Your task to perform on an android device: install app "Spotify: Music and Podcasts" Image 0: 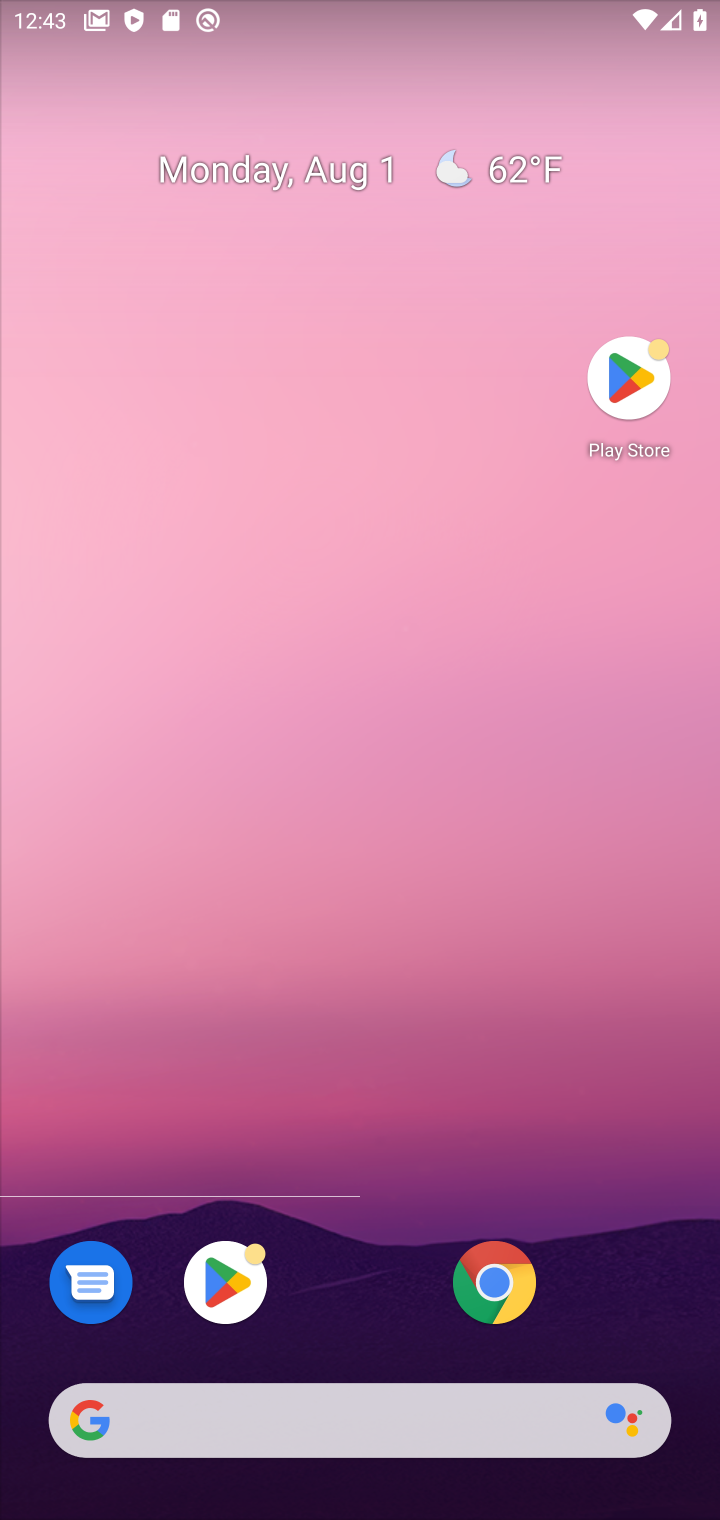
Step 0: drag from (180, 487) to (358, 368)
Your task to perform on an android device: install app "Spotify: Music and Podcasts" Image 1: 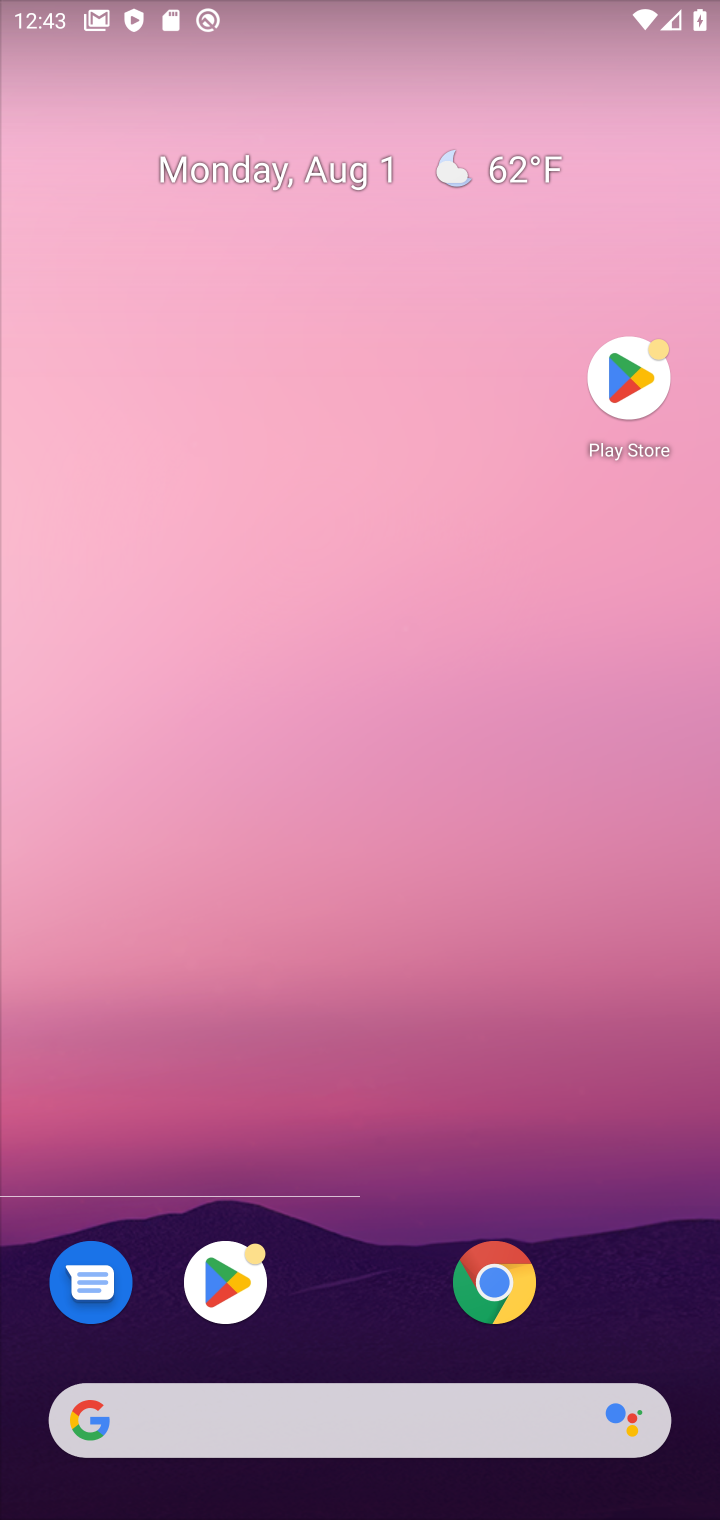
Step 1: drag from (223, 1317) to (203, 295)
Your task to perform on an android device: install app "Spotify: Music and Podcasts" Image 2: 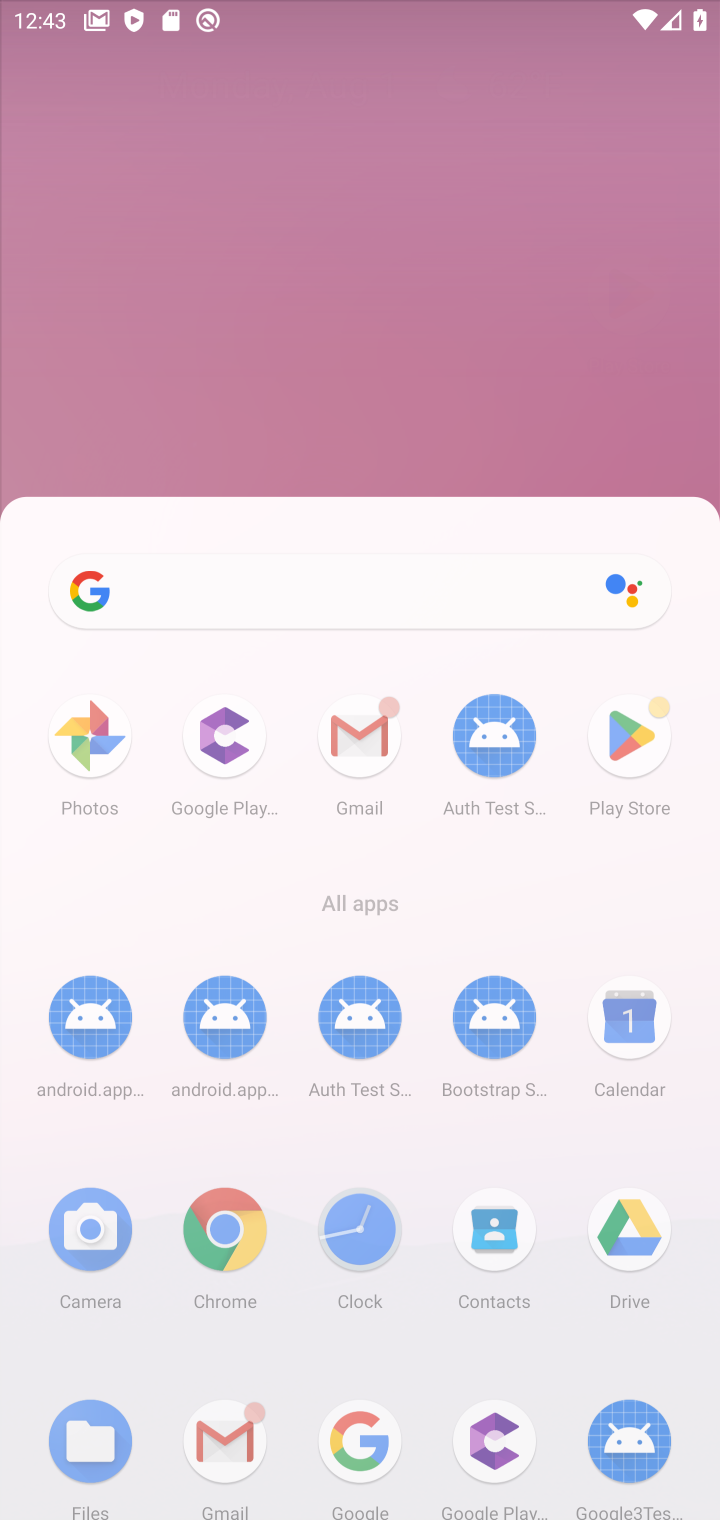
Step 2: drag from (348, 990) to (415, 608)
Your task to perform on an android device: install app "Spotify: Music and Podcasts" Image 3: 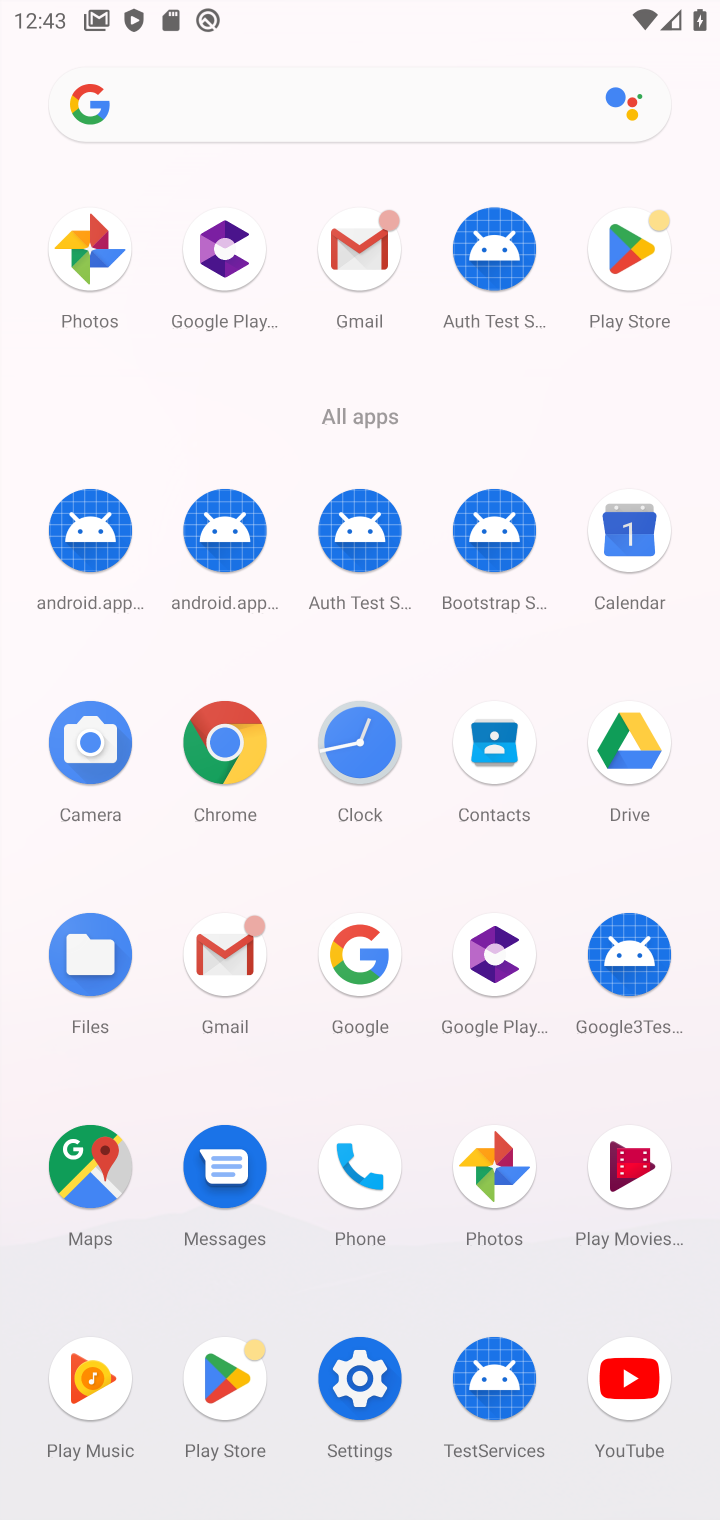
Step 3: drag from (304, 1297) to (325, 295)
Your task to perform on an android device: install app "Spotify: Music and Podcasts" Image 4: 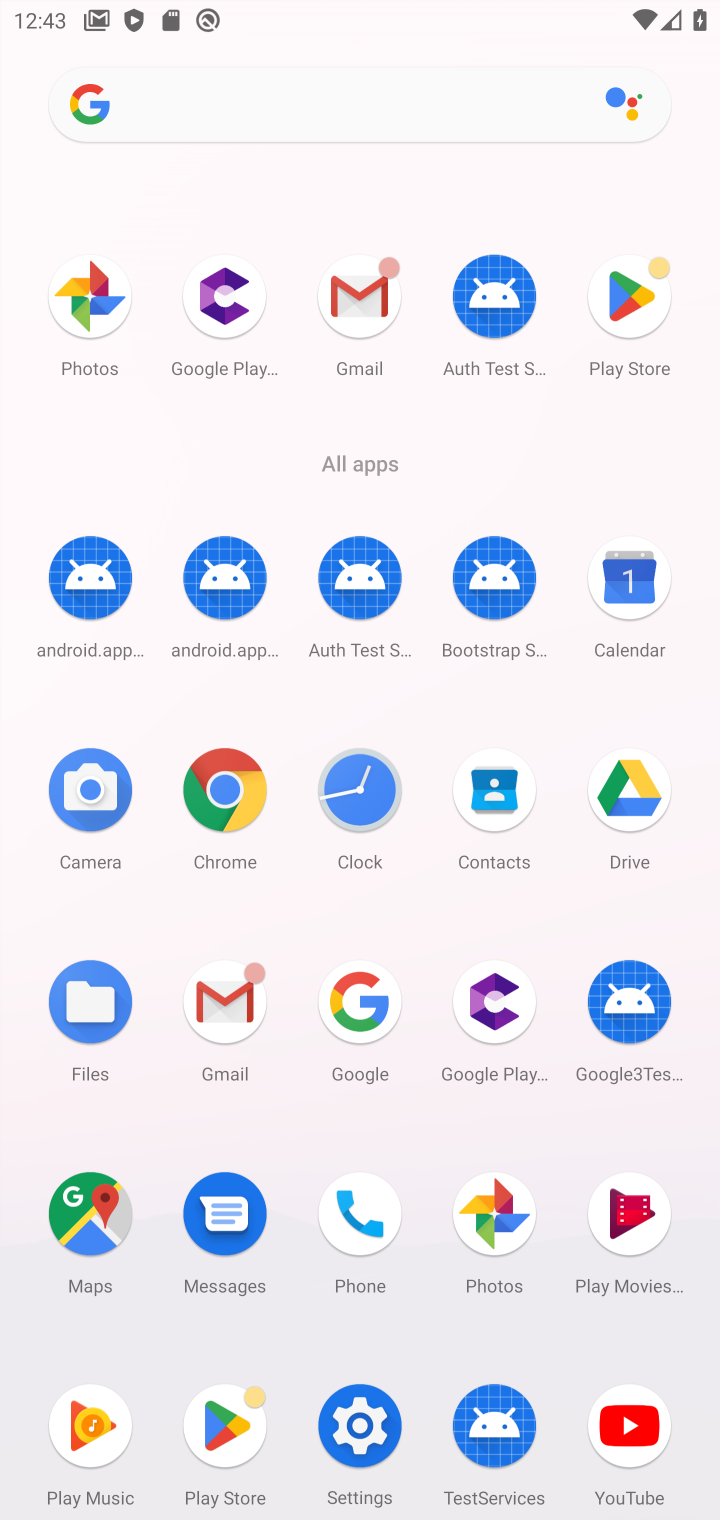
Step 4: drag from (382, 497) to (445, 530)
Your task to perform on an android device: install app "Spotify: Music and Podcasts" Image 5: 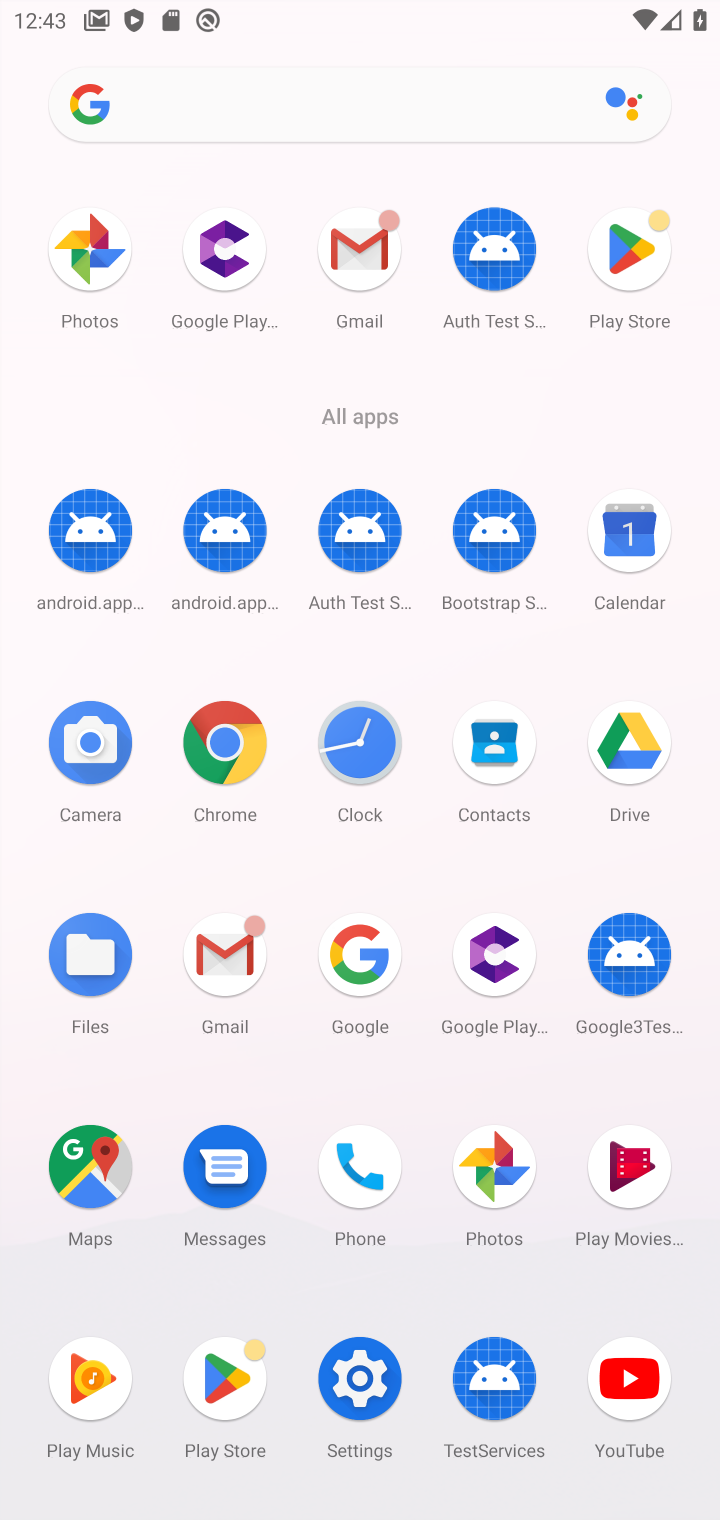
Step 5: click (222, 1395)
Your task to perform on an android device: install app "Spotify: Music and Podcasts" Image 6: 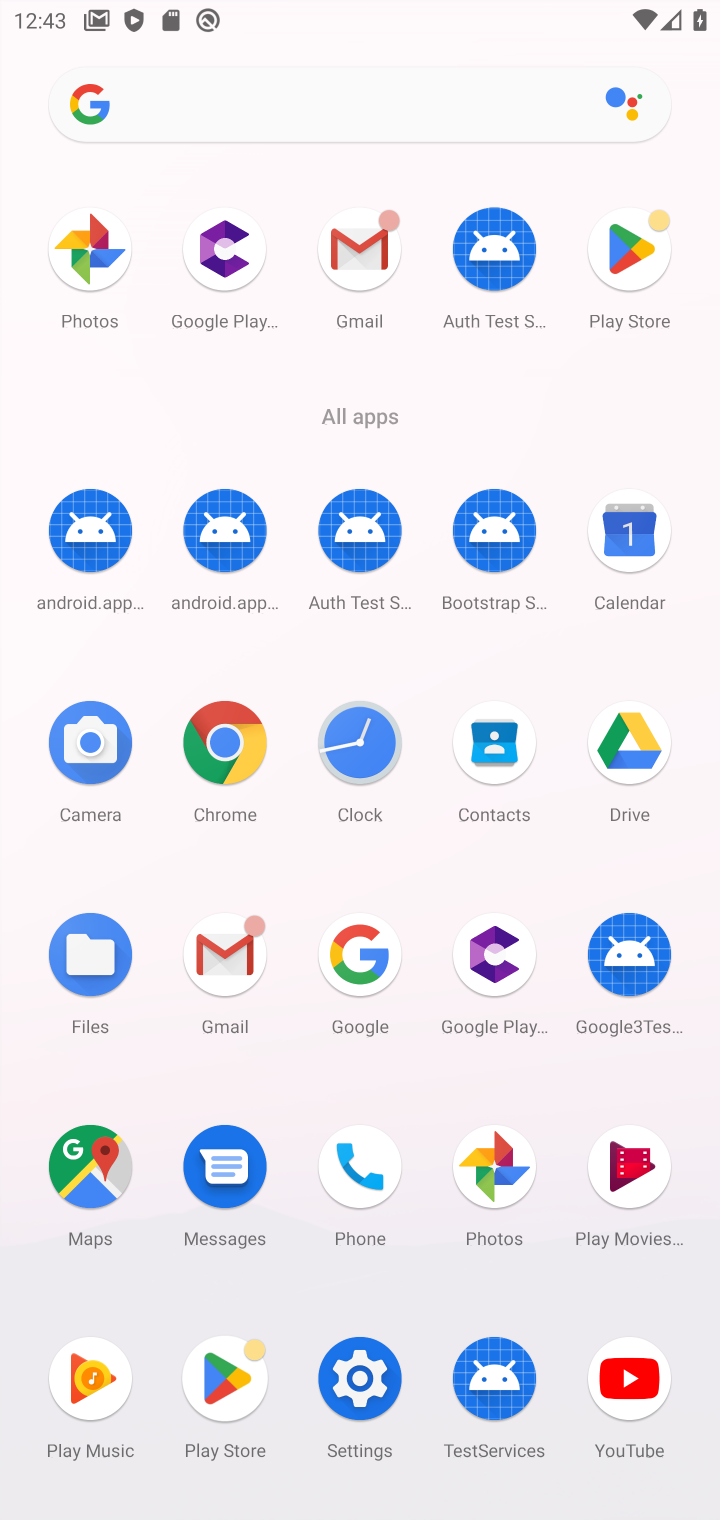
Step 6: click (219, 1387)
Your task to perform on an android device: install app "Spotify: Music and Podcasts" Image 7: 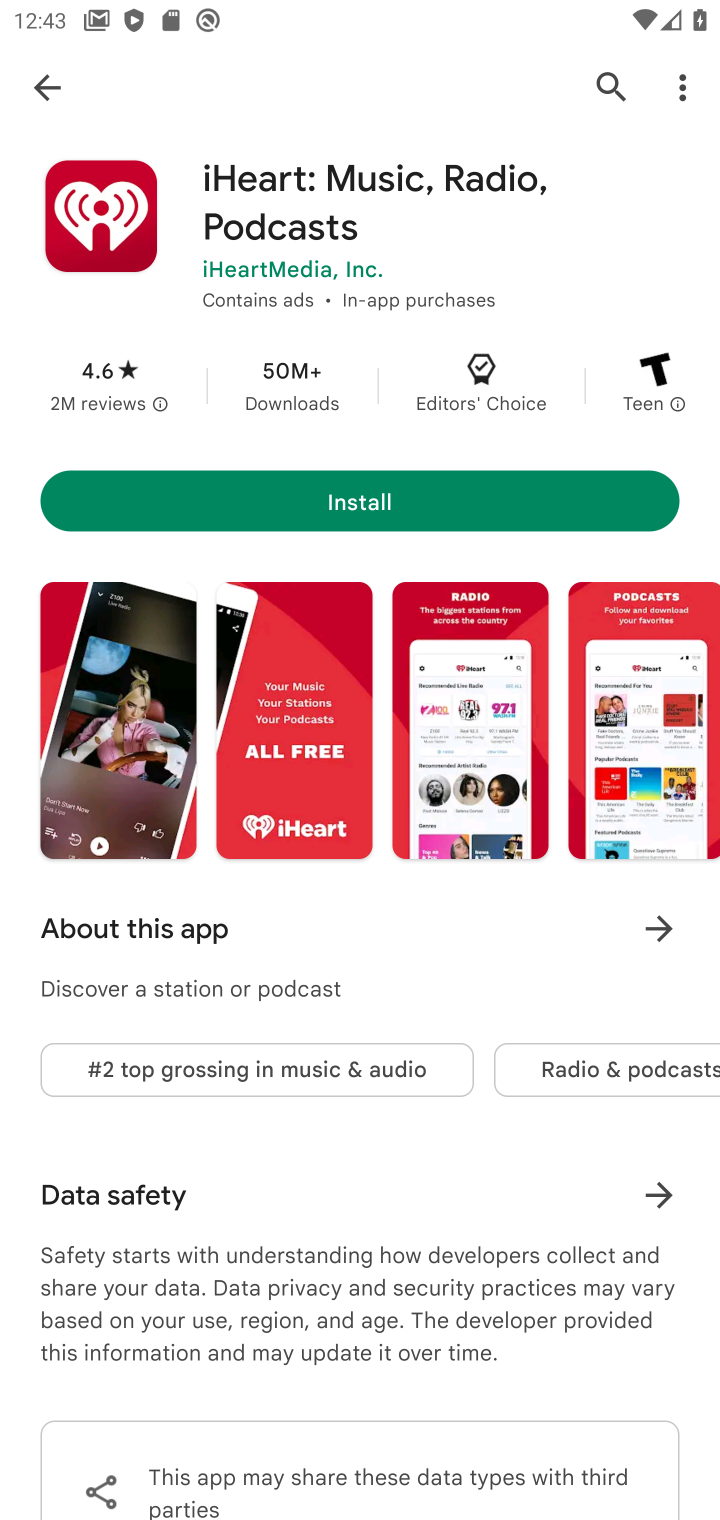
Step 7: click (232, 1390)
Your task to perform on an android device: install app "Spotify: Music and Podcasts" Image 8: 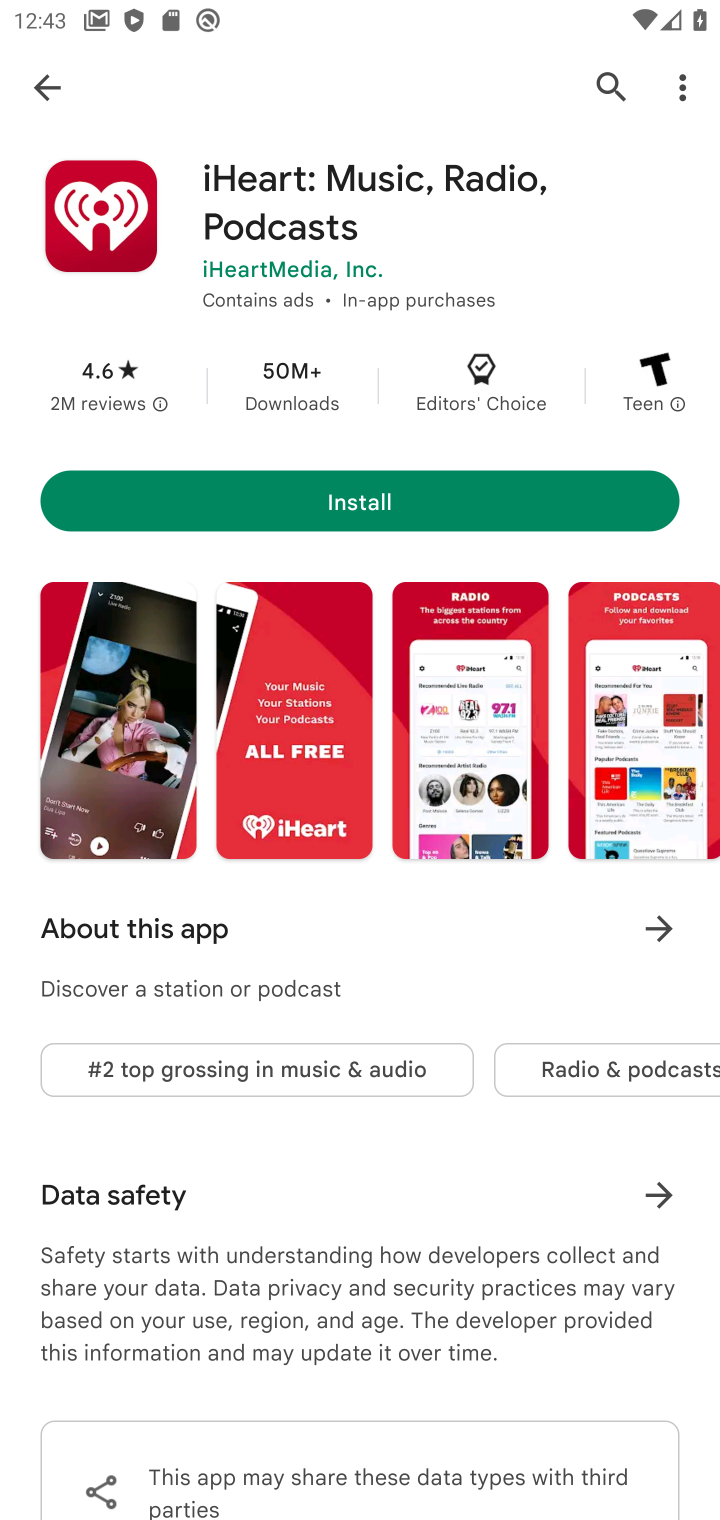
Step 8: click (37, 74)
Your task to perform on an android device: install app "Spotify: Music and Podcasts" Image 9: 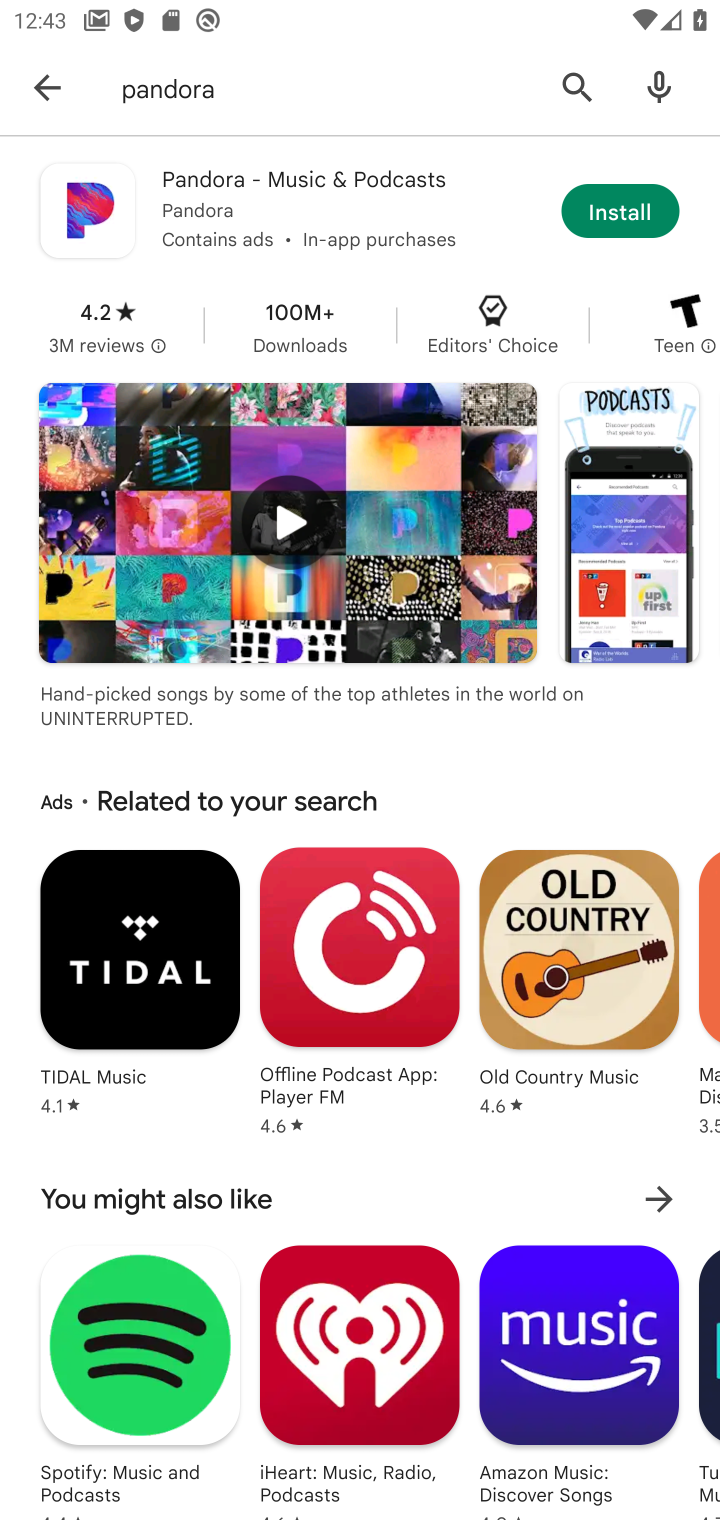
Step 9: click (33, 80)
Your task to perform on an android device: install app "Spotify: Music and Podcasts" Image 10: 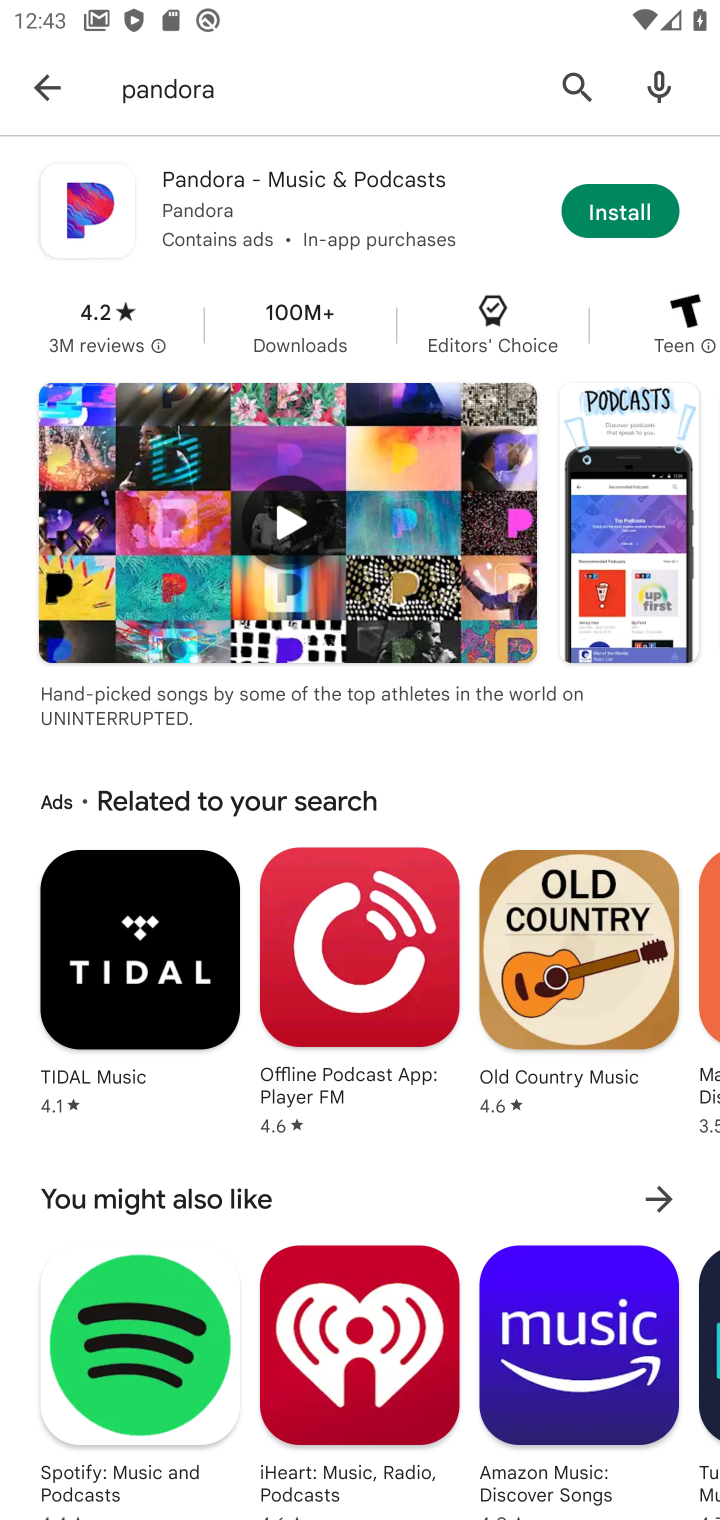
Step 10: click (44, 86)
Your task to perform on an android device: install app "Spotify: Music and Podcasts" Image 11: 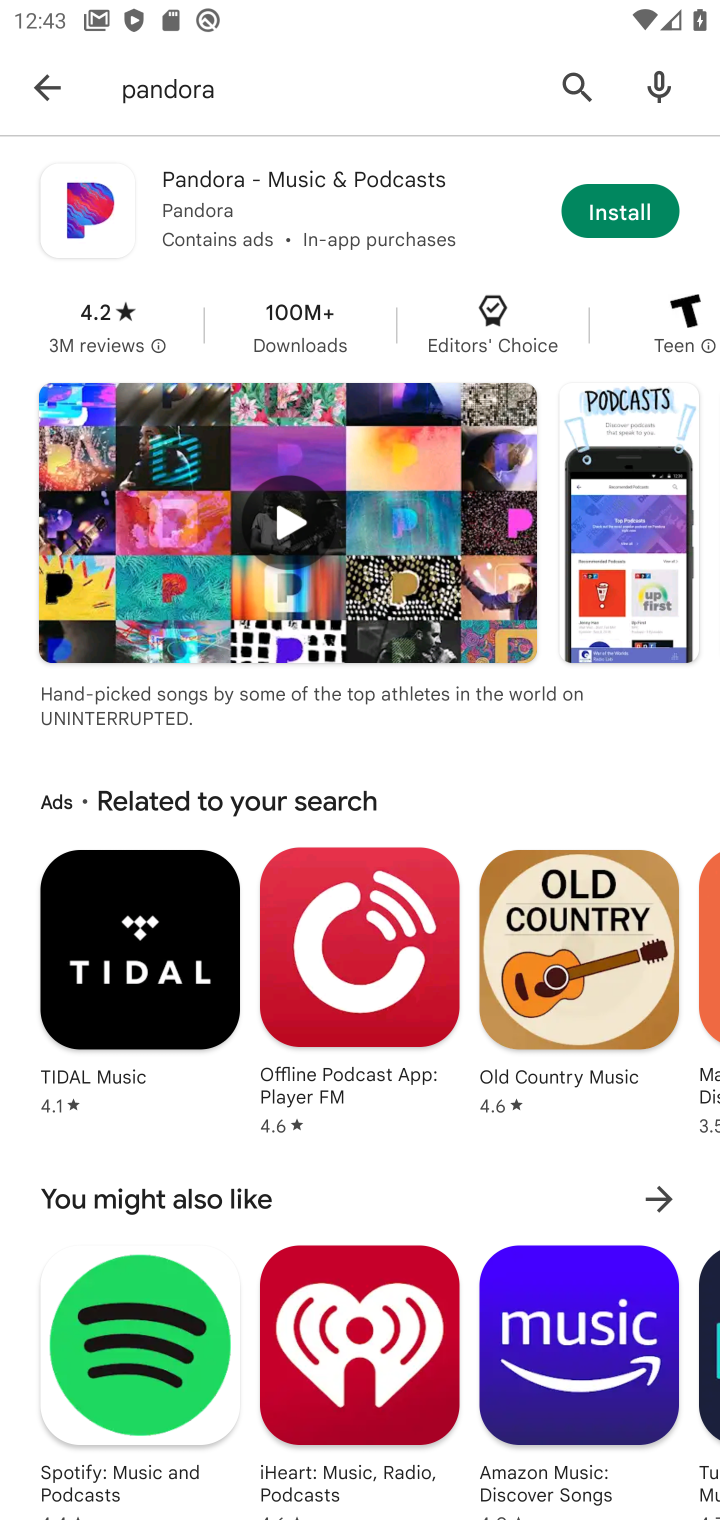
Step 11: click (45, 80)
Your task to perform on an android device: install app "Spotify: Music and Podcasts" Image 12: 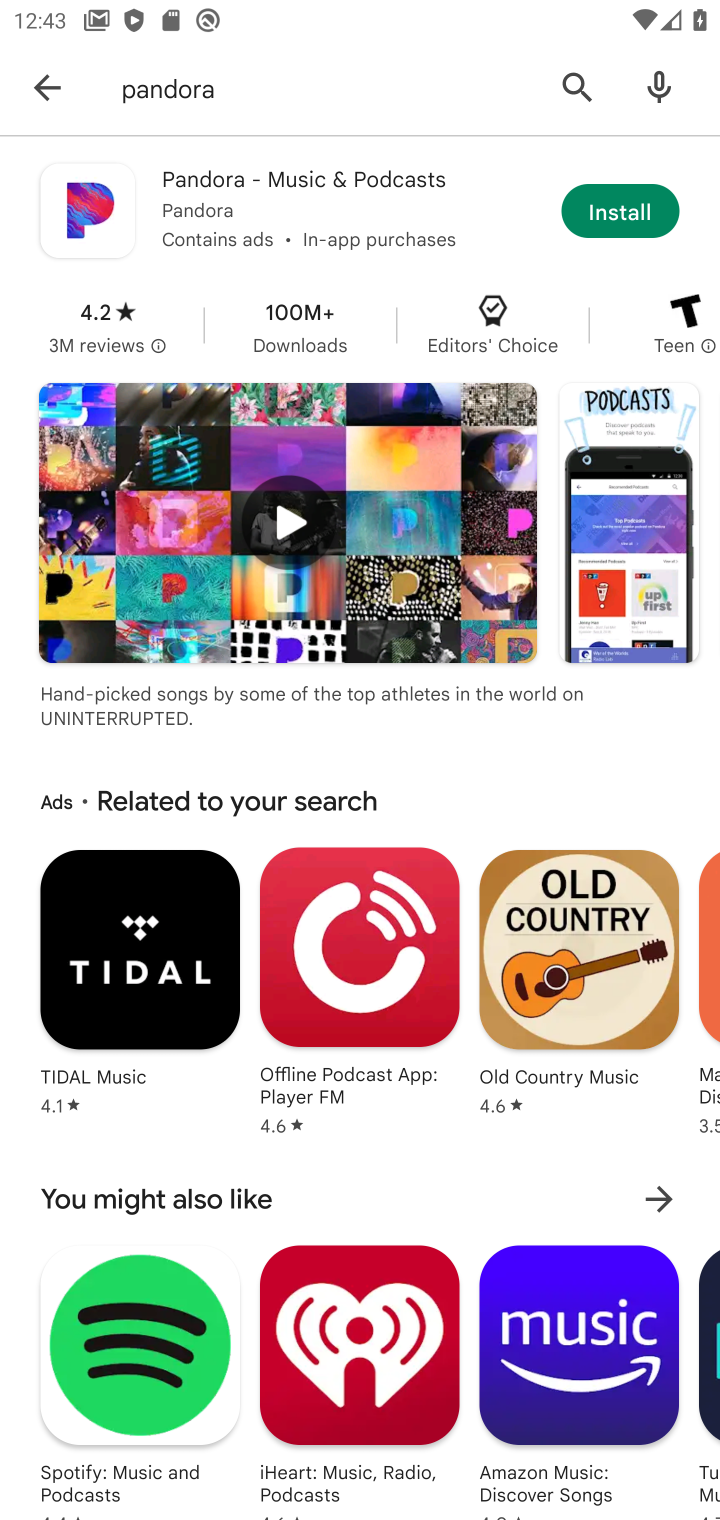
Step 12: click (45, 80)
Your task to perform on an android device: install app "Spotify: Music and Podcasts" Image 13: 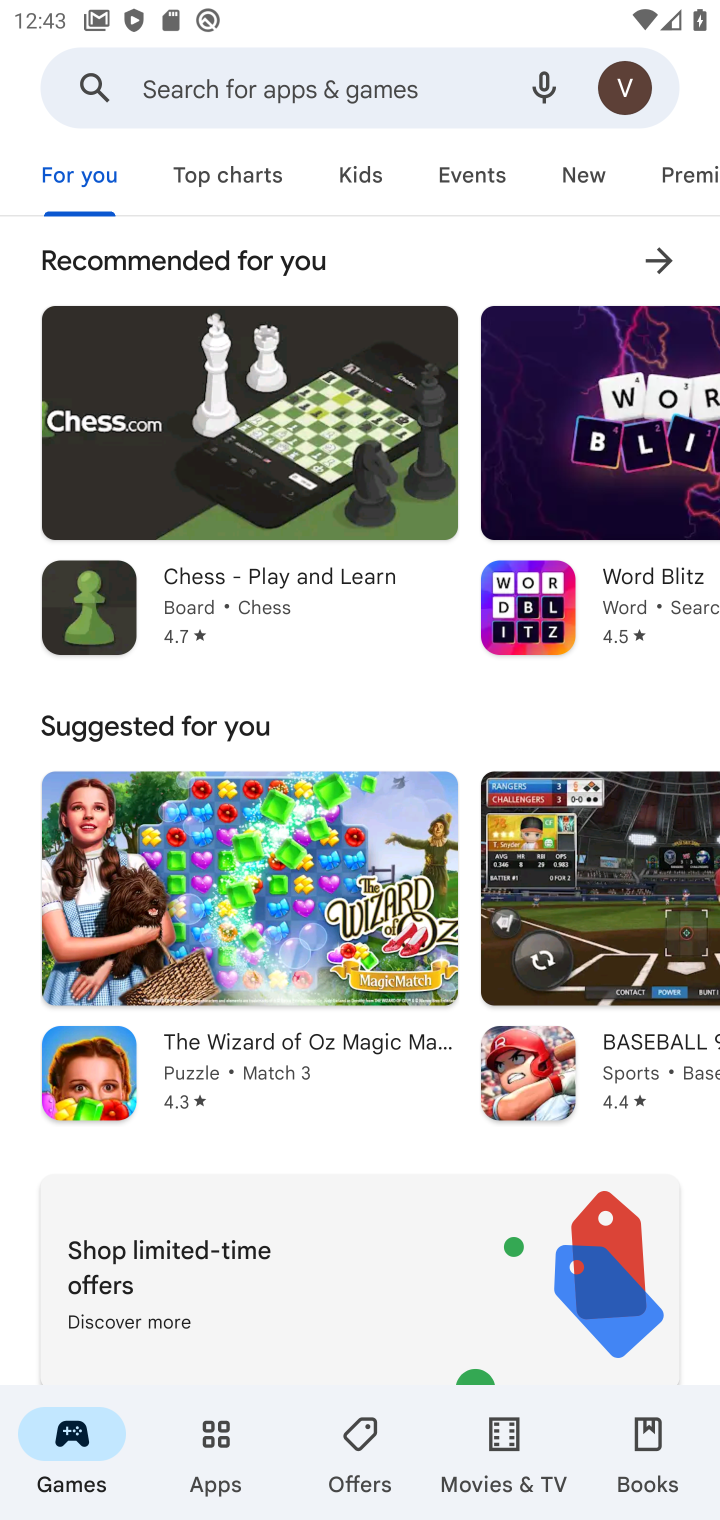
Step 13: click (192, 70)
Your task to perform on an android device: install app "Spotify: Music and Podcasts" Image 14: 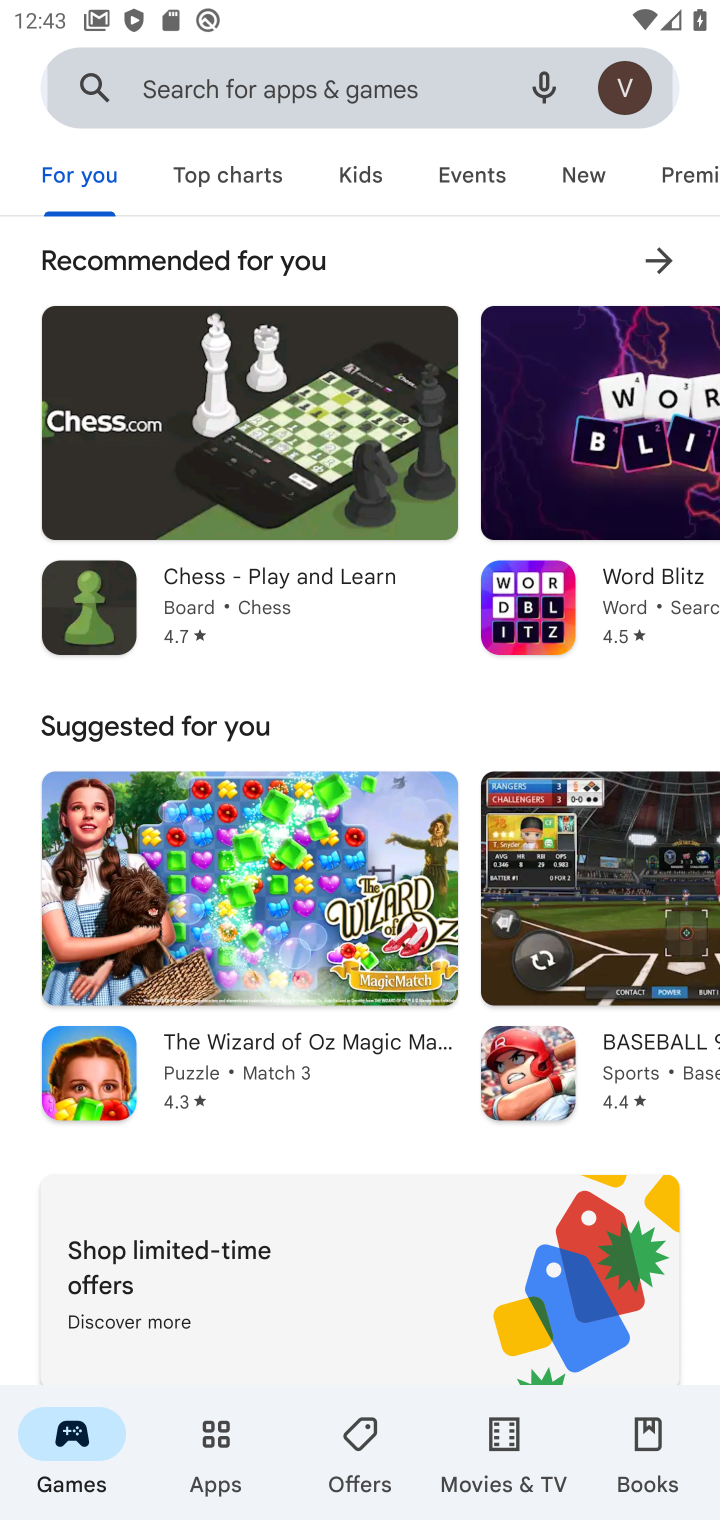
Step 14: click (216, 96)
Your task to perform on an android device: install app "Spotify: Music and Podcasts" Image 15: 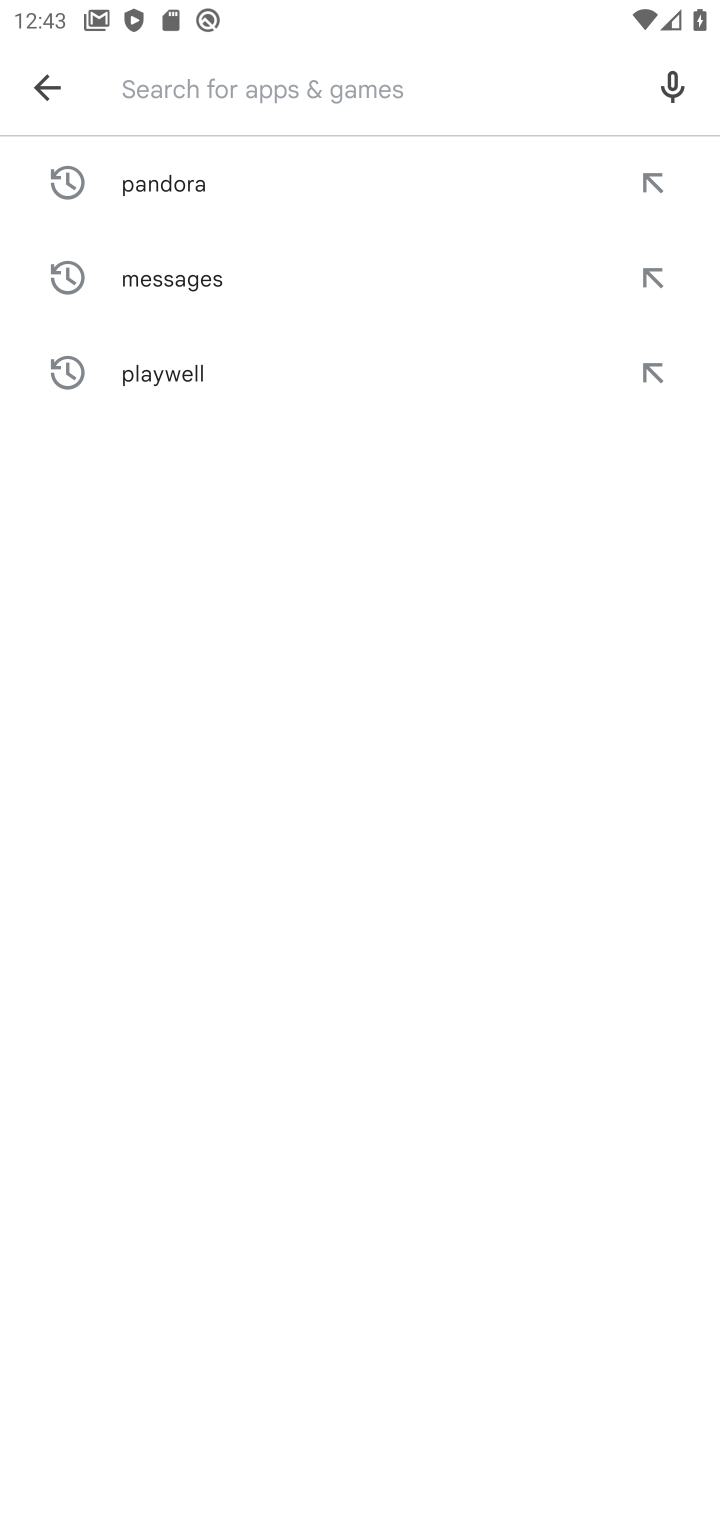
Step 15: click (216, 97)
Your task to perform on an android device: install app "Spotify: Music and Podcasts" Image 16: 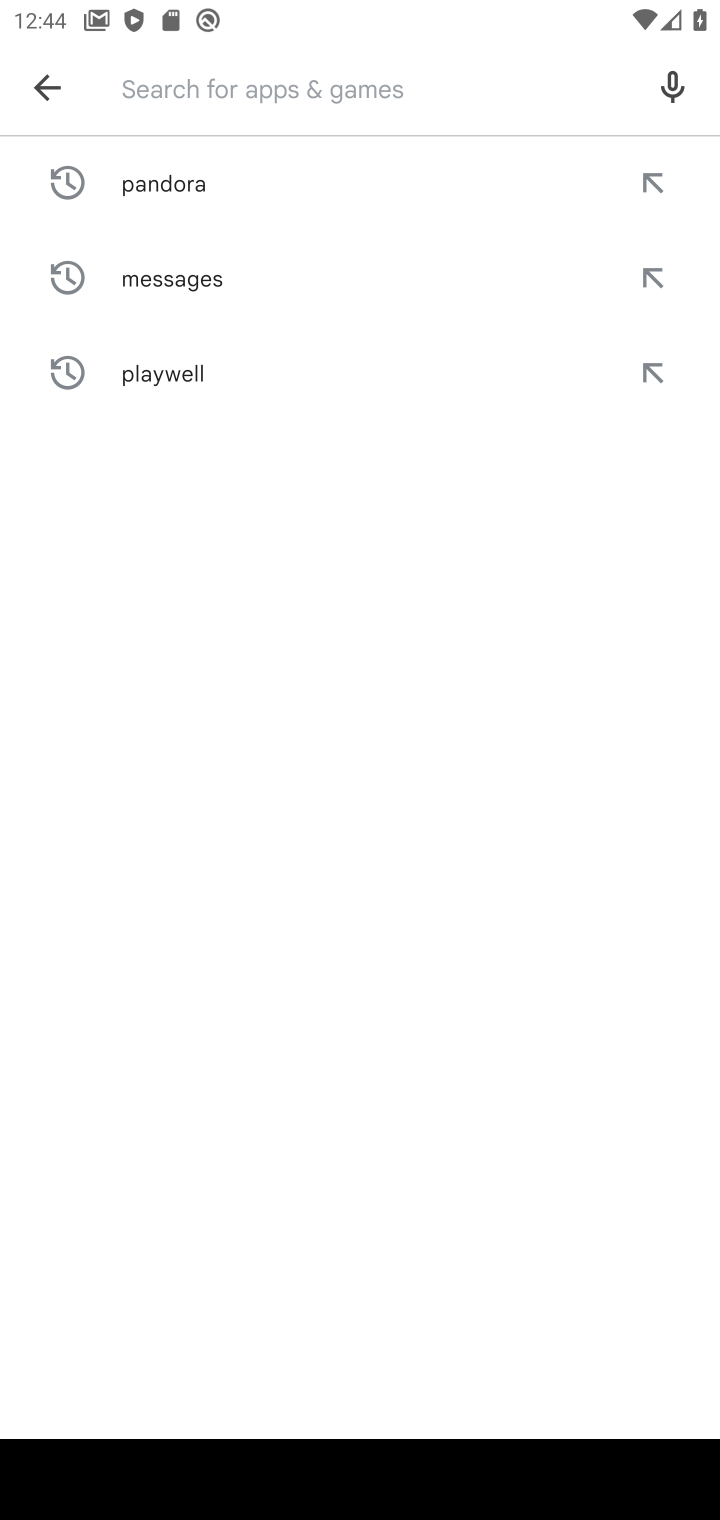
Step 16: type "spotfty "
Your task to perform on an android device: install app "Spotify: Music and Podcasts" Image 17: 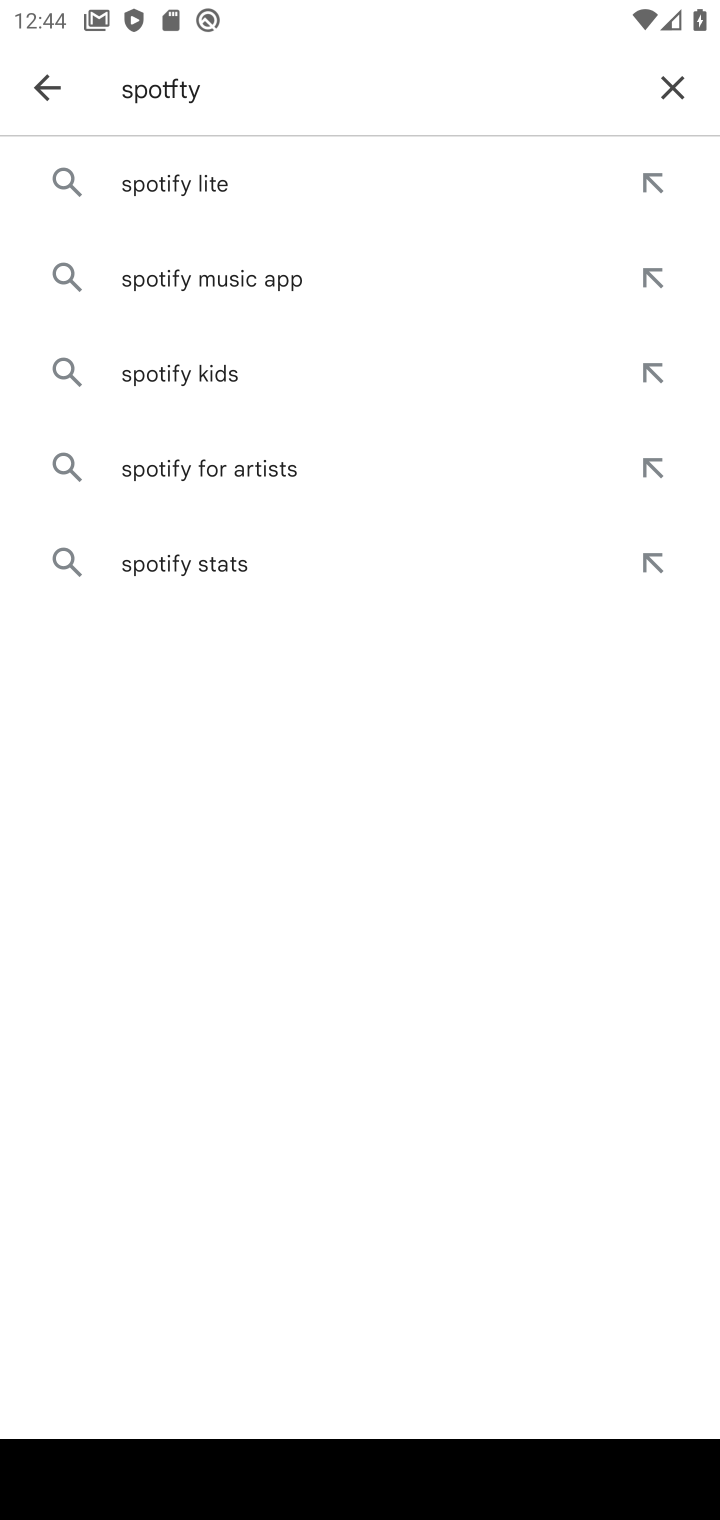
Step 17: click (172, 175)
Your task to perform on an android device: install app "Spotify: Music and Podcasts" Image 18: 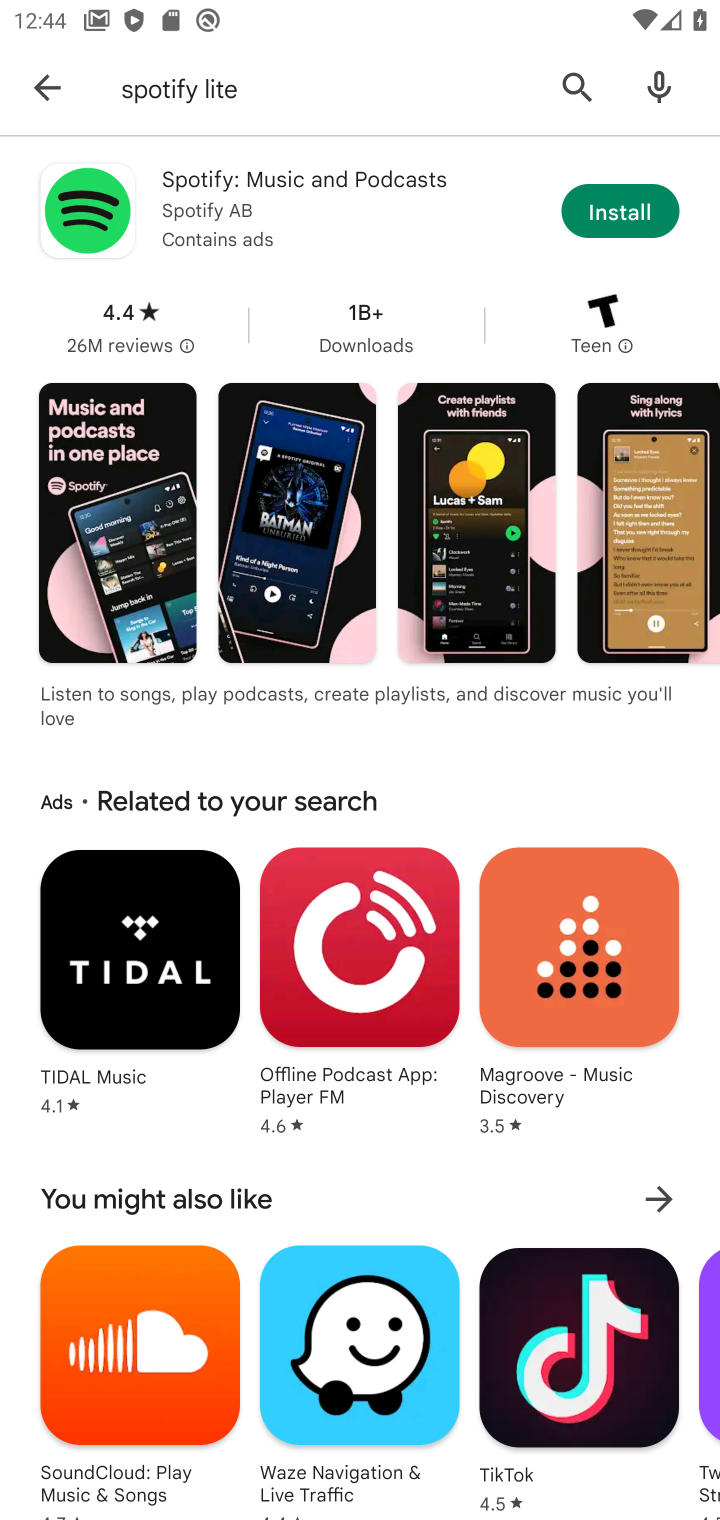
Step 18: click (620, 208)
Your task to perform on an android device: install app "Spotify: Music and Podcasts" Image 19: 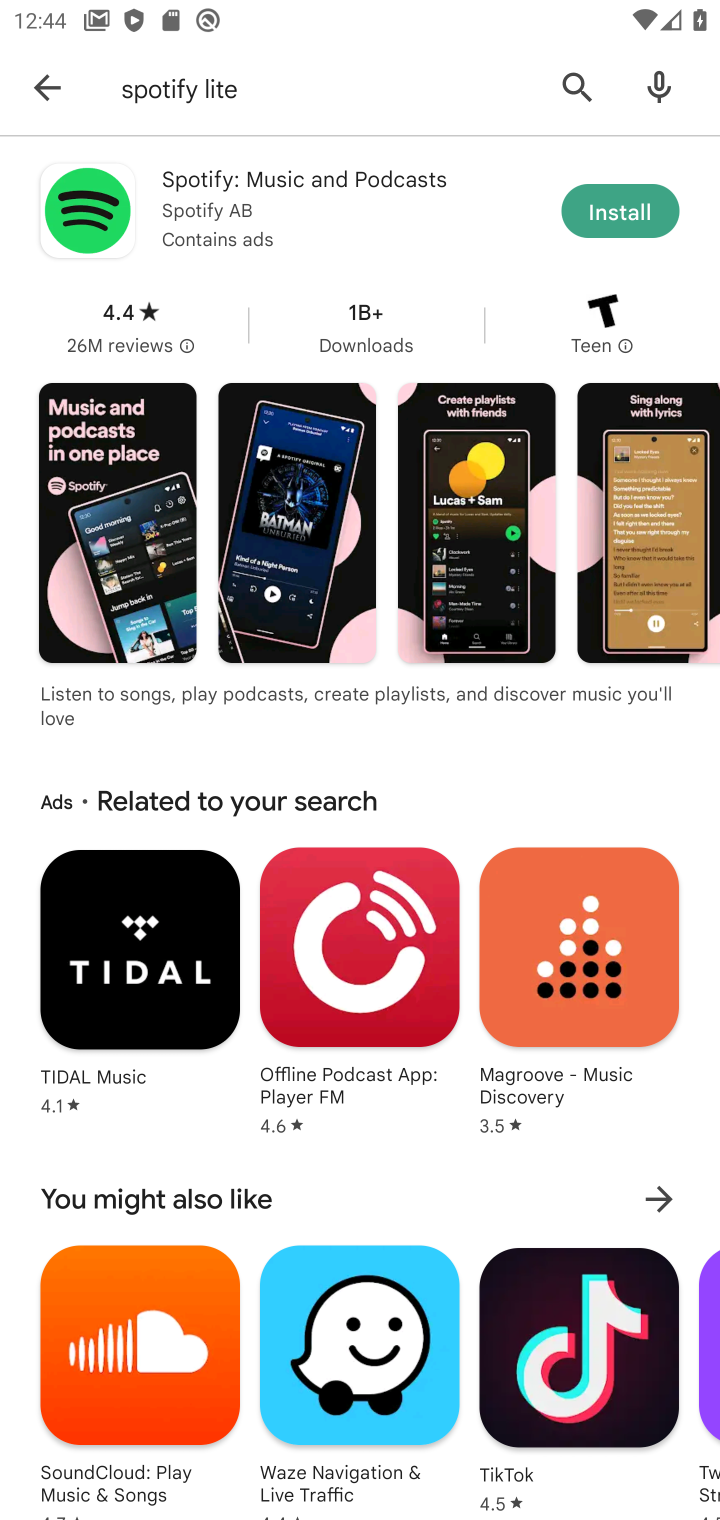
Step 19: click (627, 203)
Your task to perform on an android device: install app "Spotify: Music and Podcasts" Image 20: 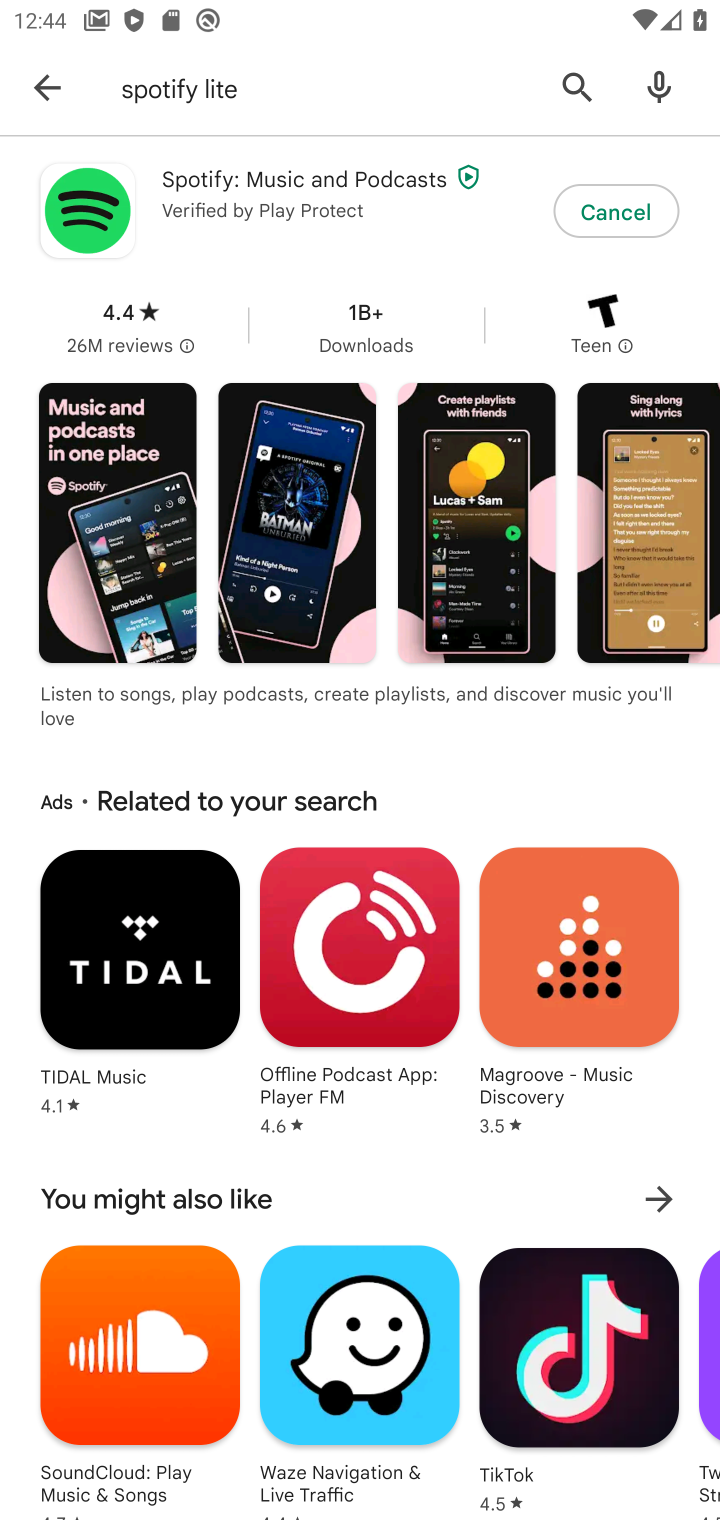
Step 20: click (630, 203)
Your task to perform on an android device: install app "Spotify: Music and Podcasts" Image 21: 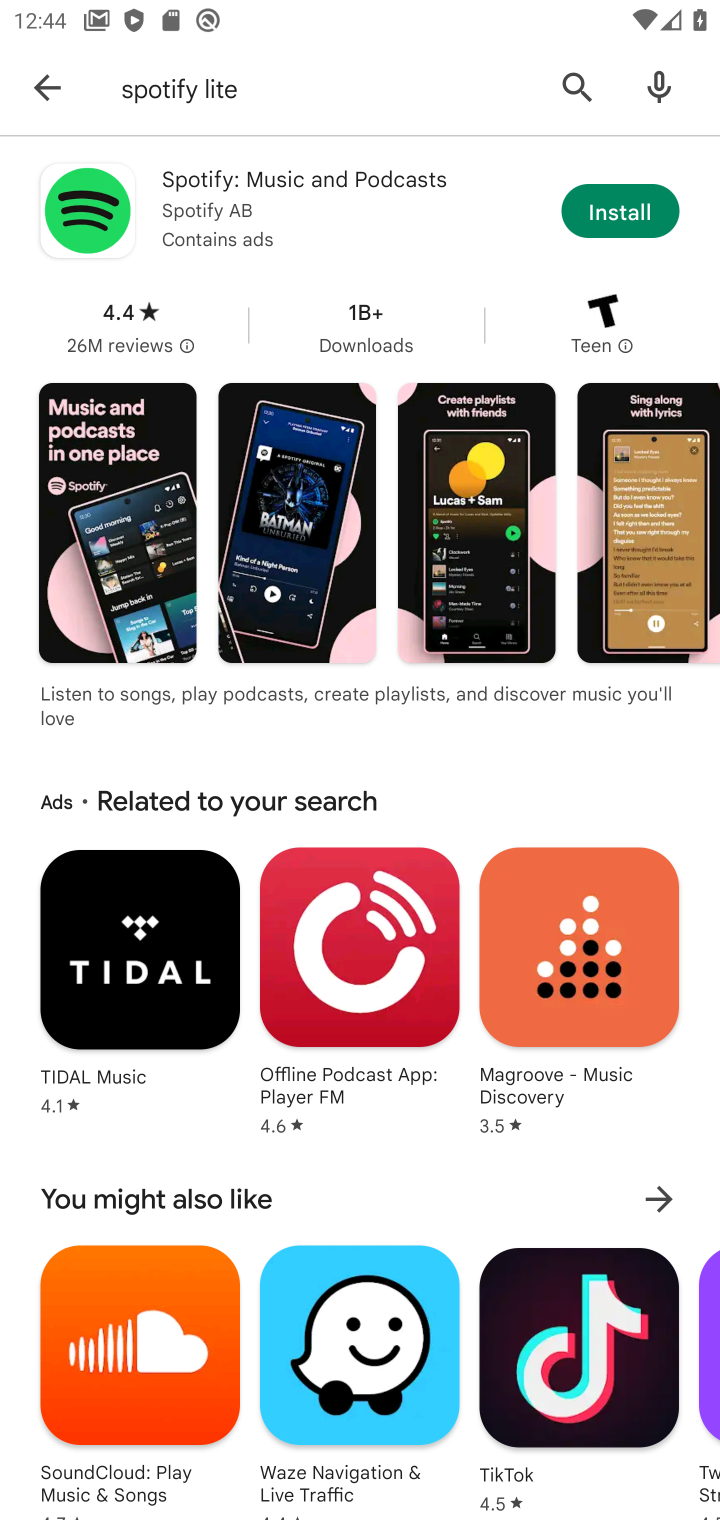
Step 21: click (628, 197)
Your task to perform on an android device: install app "Spotify: Music and Podcasts" Image 22: 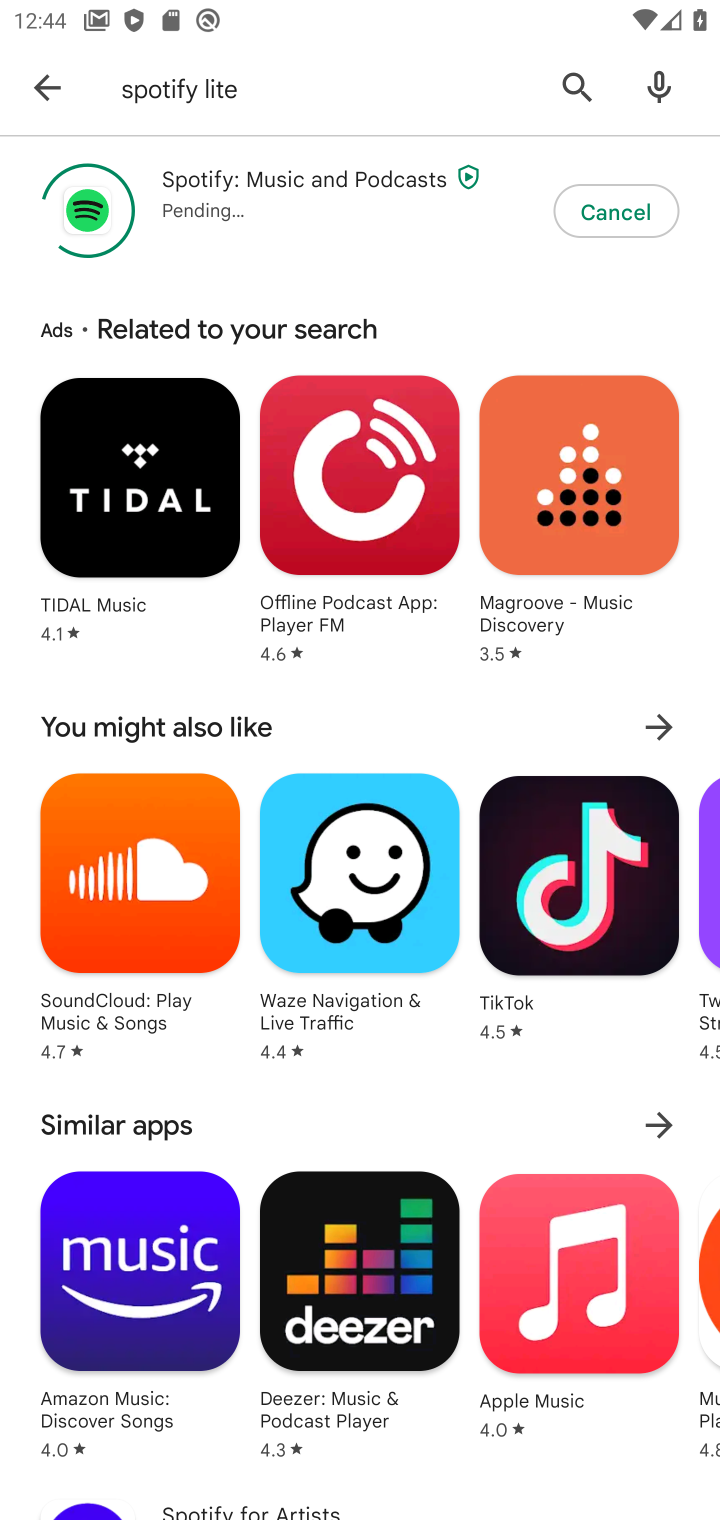
Step 22: task complete